Your task to perform on an android device: clear history in the chrome app Image 0: 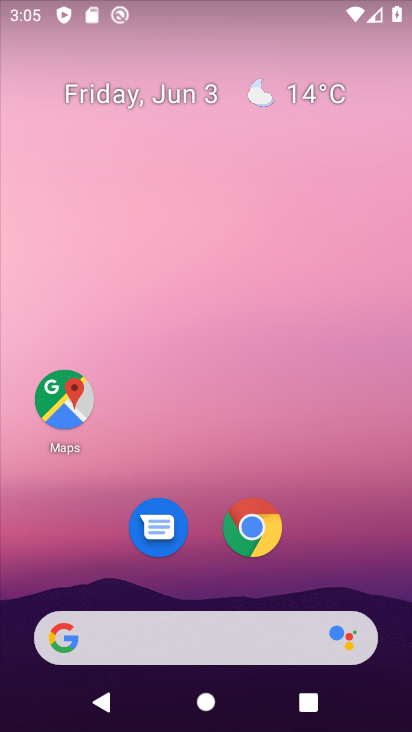
Step 0: click (253, 529)
Your task to perform on an android device: clear history in the chrome app Image 1: 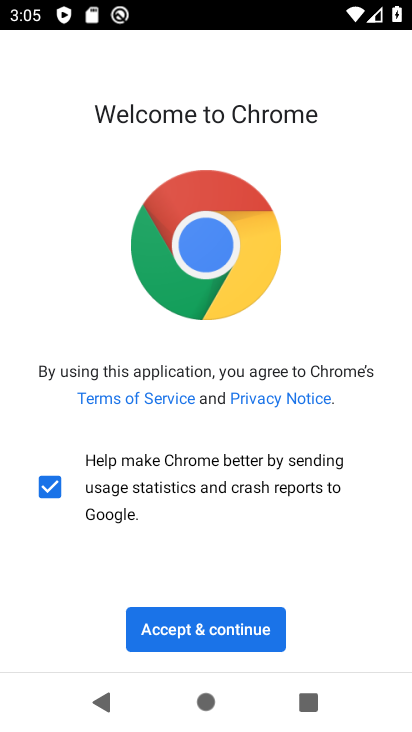
Step 1: click (213, 630)
Your task to perform on an android device: clear history in the chrome app Image 2: 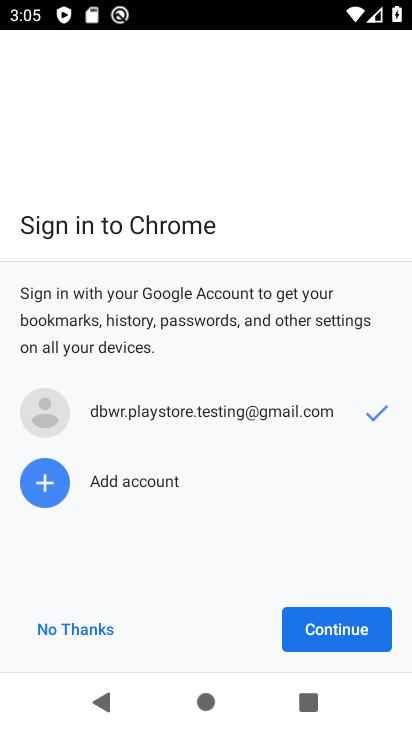
Step 2: click (330, 635)
Your task to perform on an android device: clear history in the chrome app Image 3: 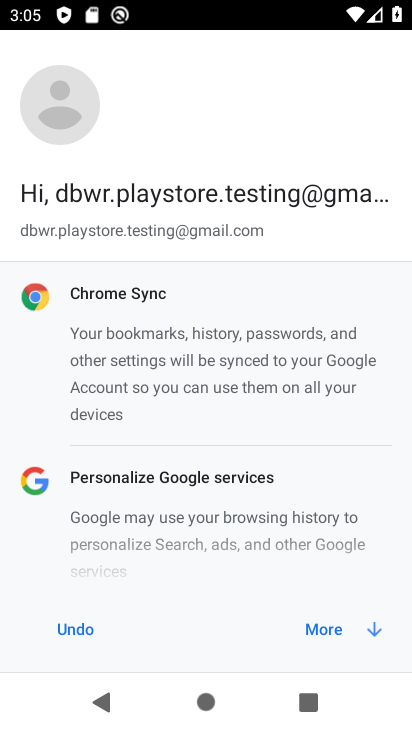
Step 3: click (327, 624)
Your task to perform on an android device: clear history in the chrome app Image 4: 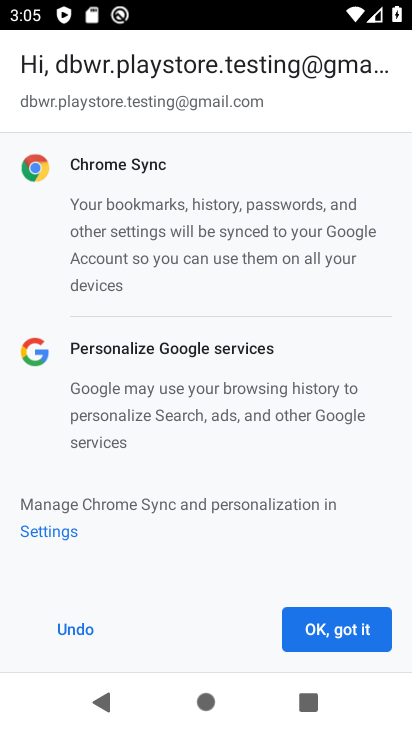
Step 4: click (327, 624)
Your task to perform on an android device: clear history in the chrome app Image 5: 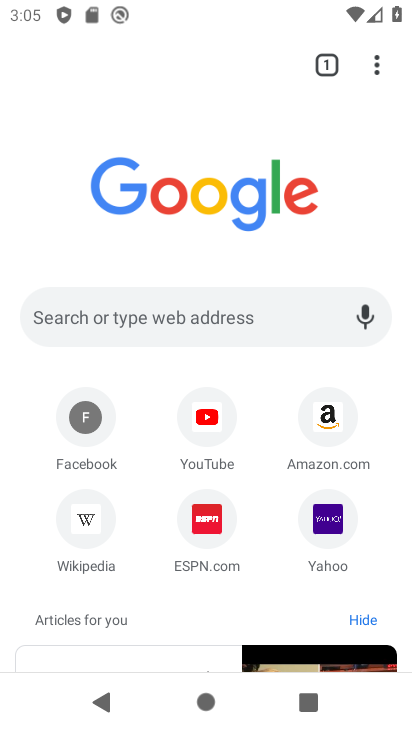
Step 5: click (378, 66)
Your task to perform on an android device: clear history in the chrome app Image 6: 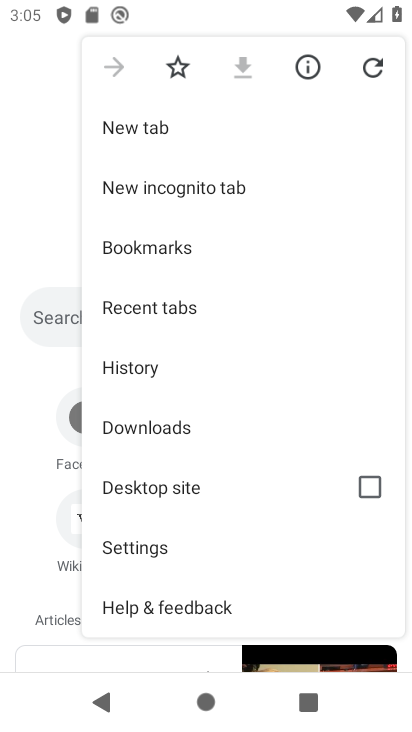
Step 6: click (148, 369)
Your task to perform on an android device: clear history in the chrome app Image 7: 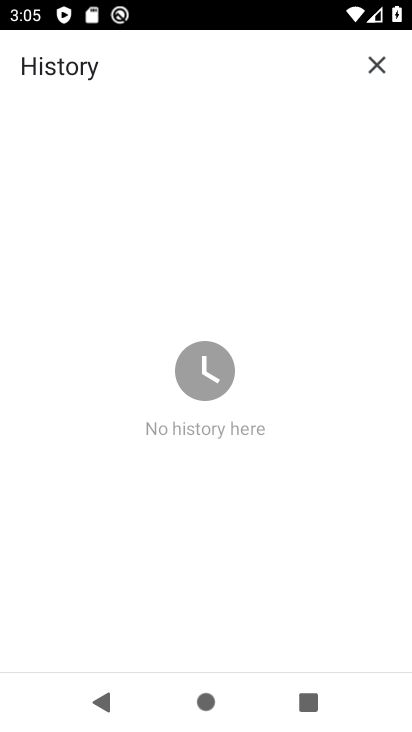
Step 7: task complete